Your task to perform on an android device: turn on data saver in the chrome app Image 0: 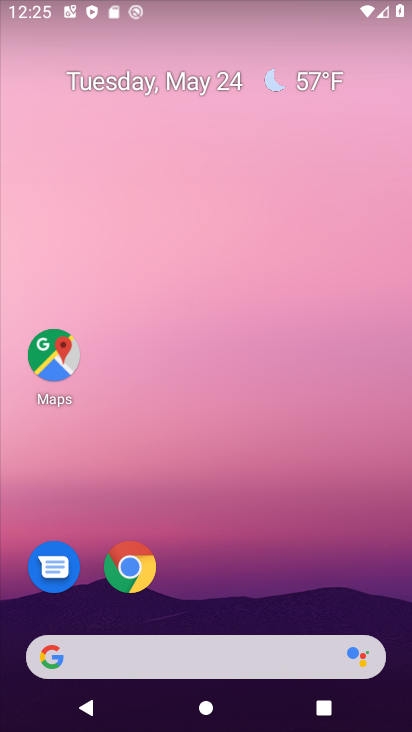
Step 0: click (136, 588)
Your task to perform on an android device: turn on data saver in the chrome app Image 1: 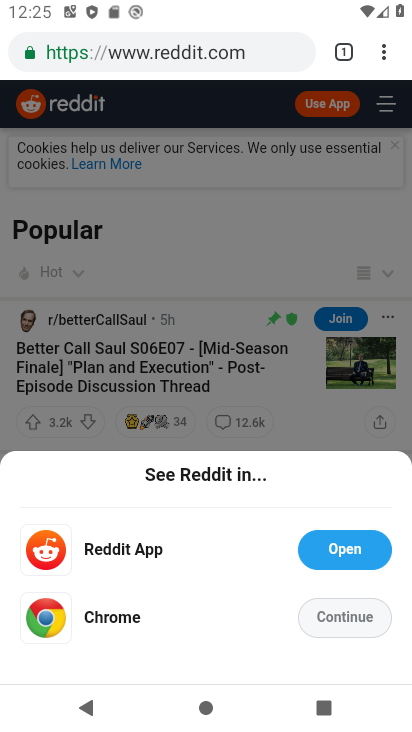
Step 1: drag from (388, 56) to (228, 611)
Your task to perform on an android device: turn on data saver in the chrome app Image 2: 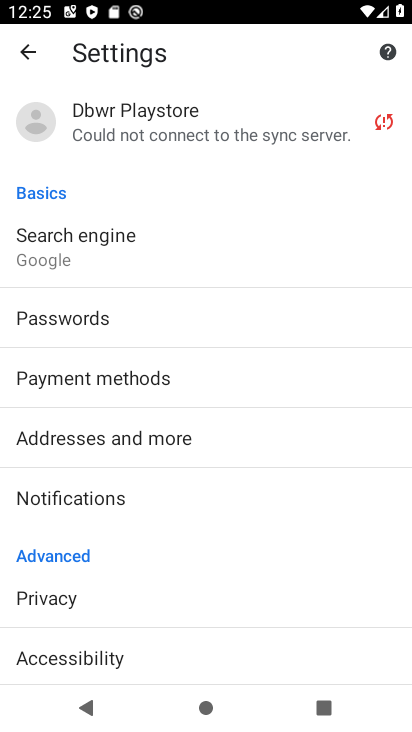
Step 2: drag from (126, 618) to (144, 121)
Your task to perform on an android device: turn on data saver in the chrome app Image 3: 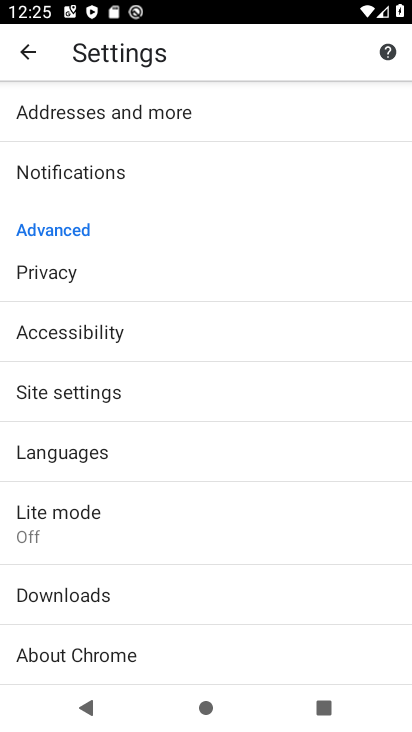
Step 3: click (103, 524)
Your task to perform on an android device: turn on data saver in the chrome app Image 4: 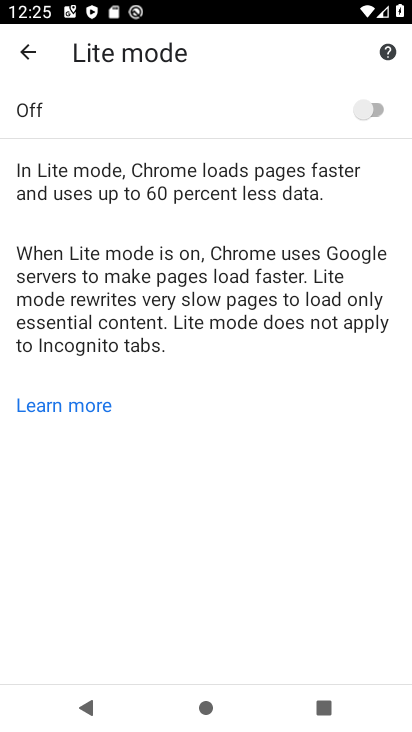
Step 4: click (365, 105)
Your task to perform on an android device: turn on data saver in the chrome app Image 5: 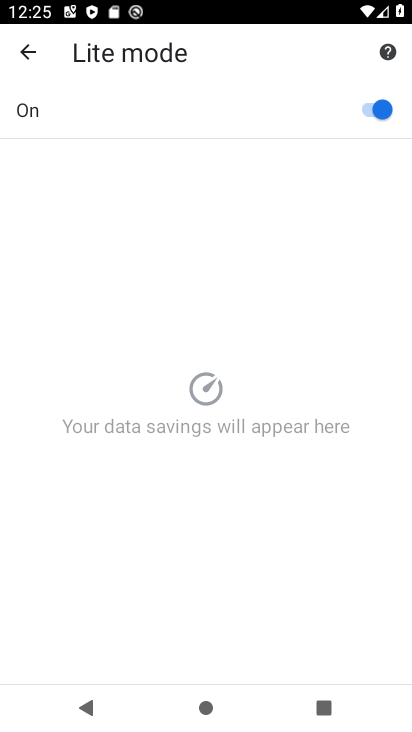
Step 5: task complete